Your task to perform on an android device: See recent photos Image 0: 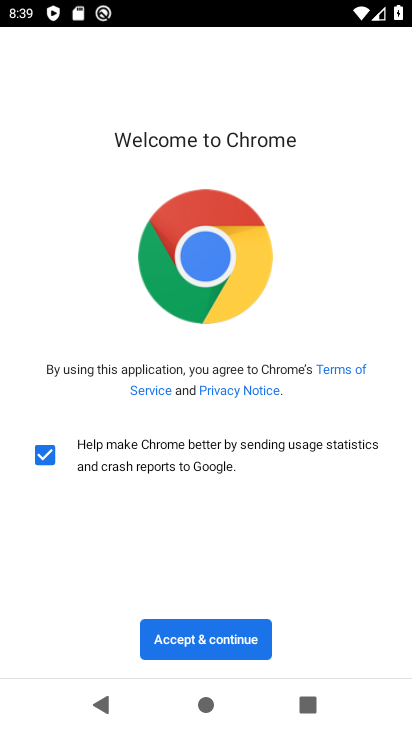
Step 0: press home button
Your task to perform on an android device: See recent photos Image 1: 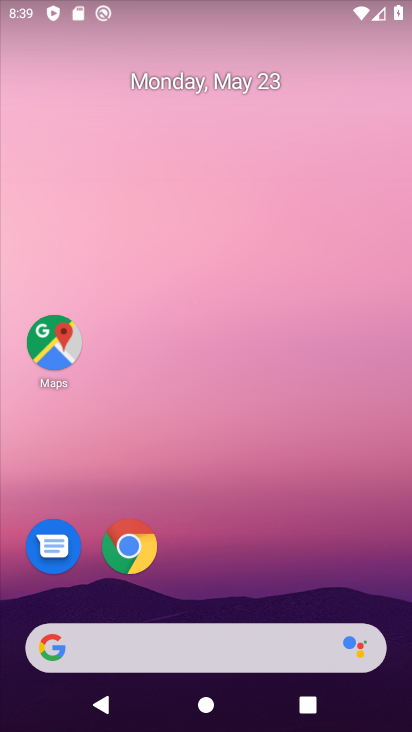
Step 1: drag from (272, 506) to (296, 168)
Your task to perform on an android device: See recent photos Image 2: 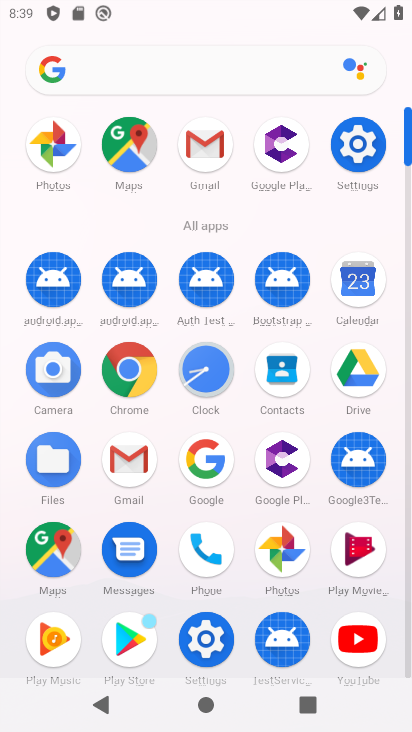
Step 2: click (290, 543)
Your task to perform on an android device: See recent photos Image 3: 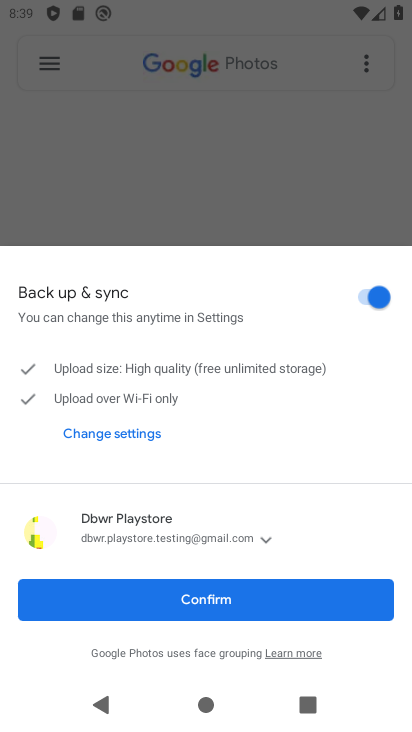
Step 3: click (286, 598)
Your task to perform on an android device: See recent photos Image 4: 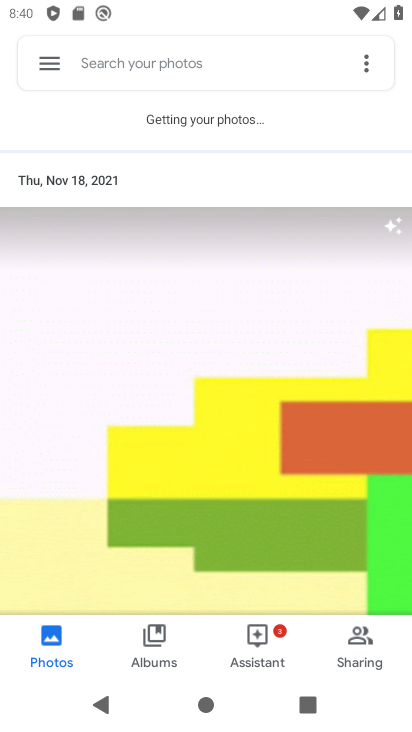
Step 4: task complete